Your task to perform on an android device: Toggle the flashlight Image 0: 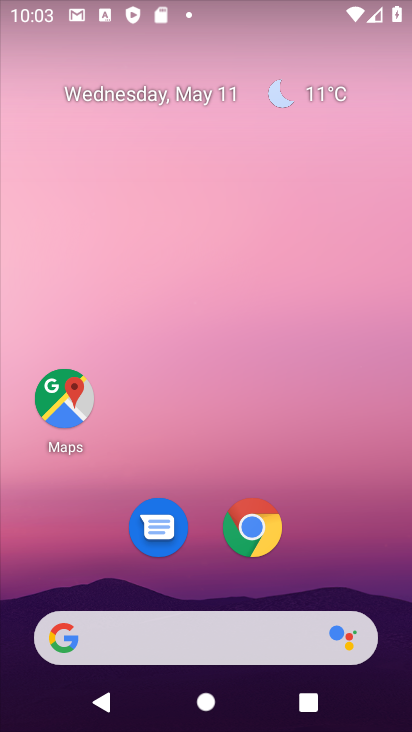
Step 0: drag from (327, 504) to (314, 5)
Your task to perform on an android device: Toggle the flashlight Image 1: 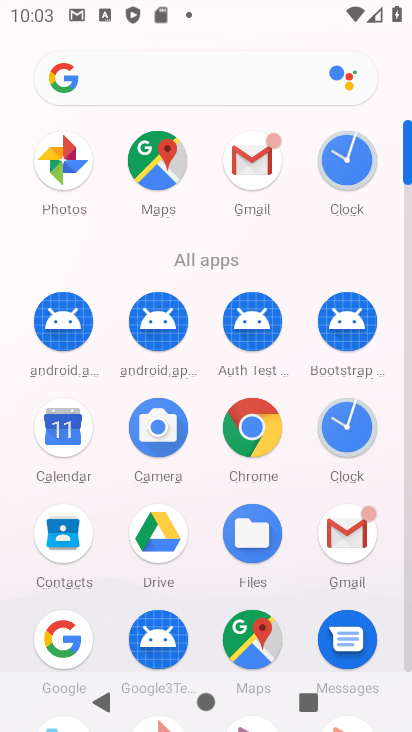
Step 1: click (383, 628)
Your task to perform on an android device: Toggle the flashlight Image 2: 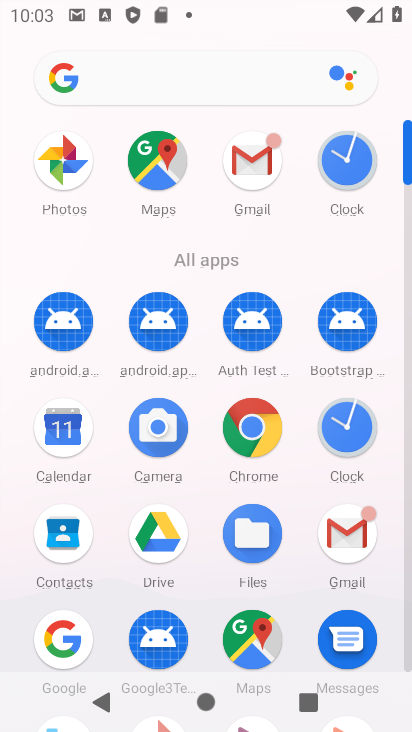
Step 2: drag from (390, 585) to (401, 236)
Your task to perform on an android device: Toggle the flashlight Image 3: 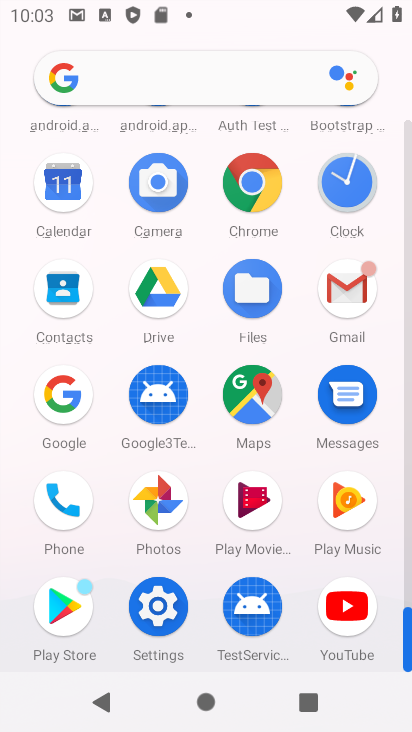
Step 3: click (153, 617)
Your task to perform on an android device: Toggle the flashlight Image 4: 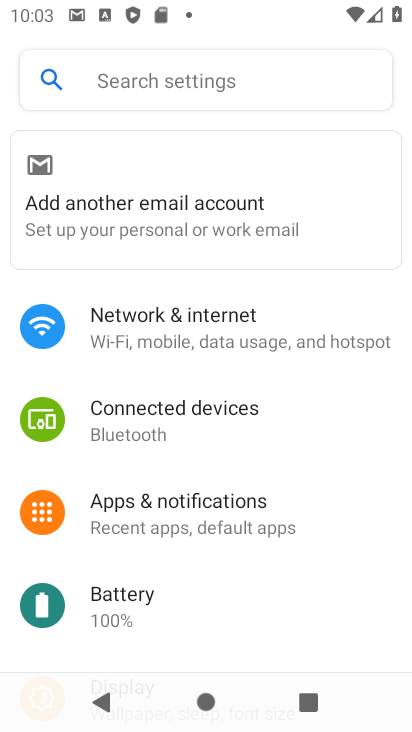
Step 4: task complete